Your task to perform on an android device: toggle pop-ups in chrome Image 0: 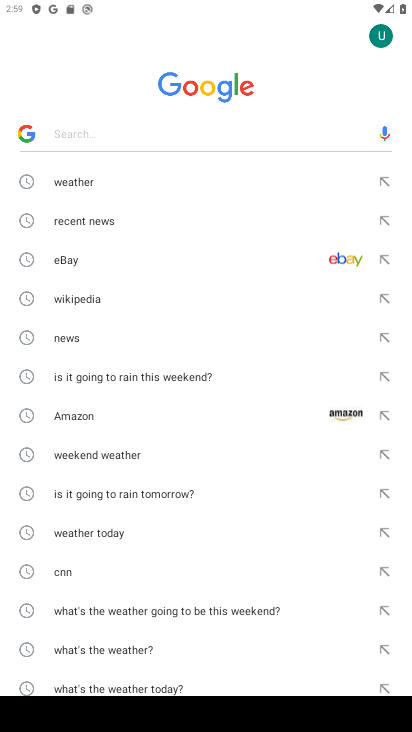
Step 0: press home button
Your task to perform on an android device: toggle pop-ups in chrome Image 1: 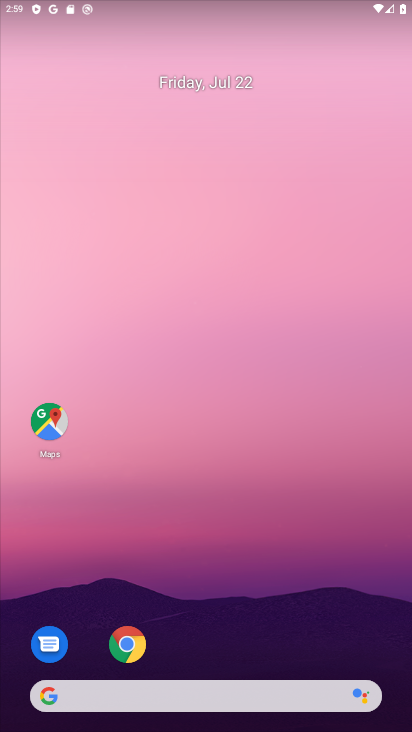
Step 1: click (132, 649)
Your task to perform on an android device: toggle pop-ups in chrome Image 2: 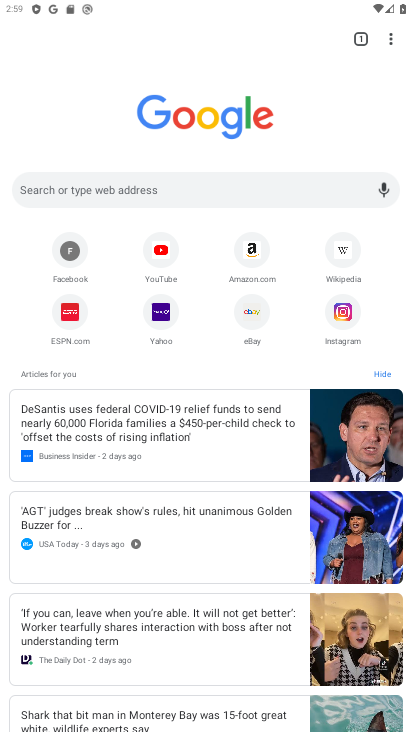
Step 2: click (392, 37)
Your task to perform on an android device: toggle pop-ups in chrome Image 3: 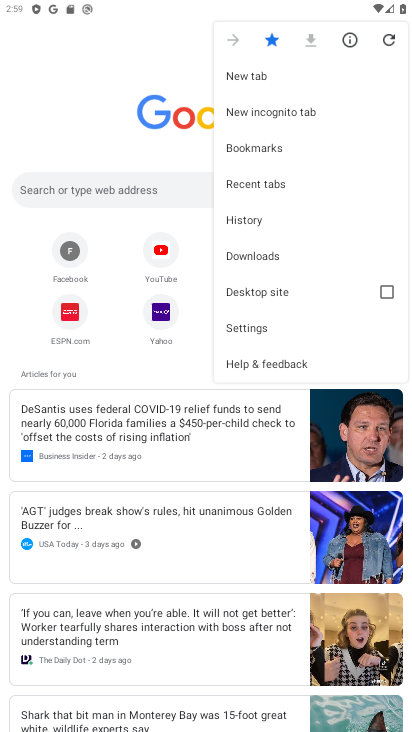
Step 3: click (263, 319)
Your task to perform on an android device: toggle pop-ups in chrome Image 4: 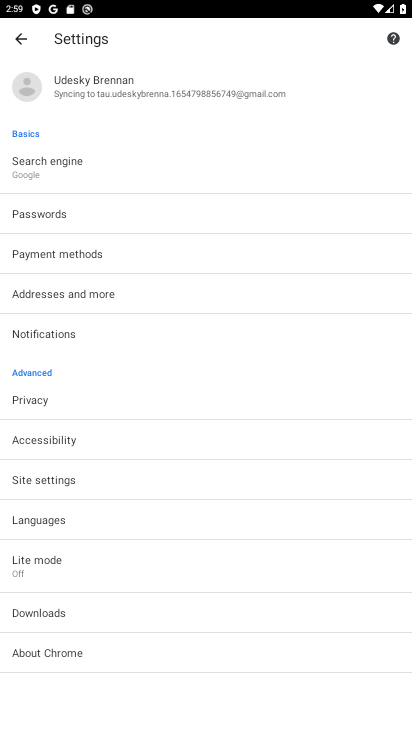
Step 4: task complete